Your task to perform on an android device: check battery use Image 0: 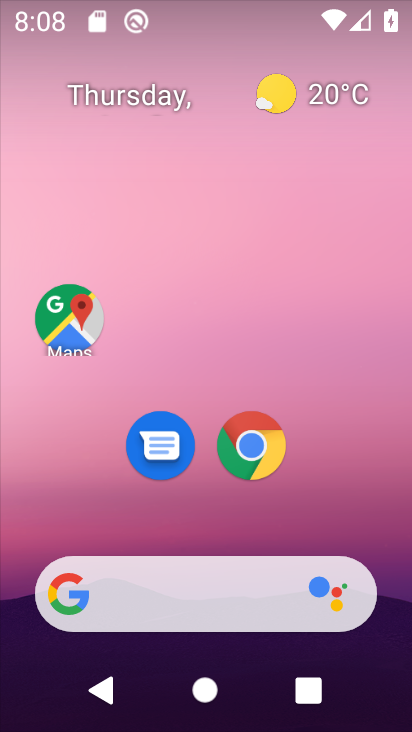
Step 0: drag from (291, 438) to (298, 24)
Your task to perform on an android device: check battery use Image 1: 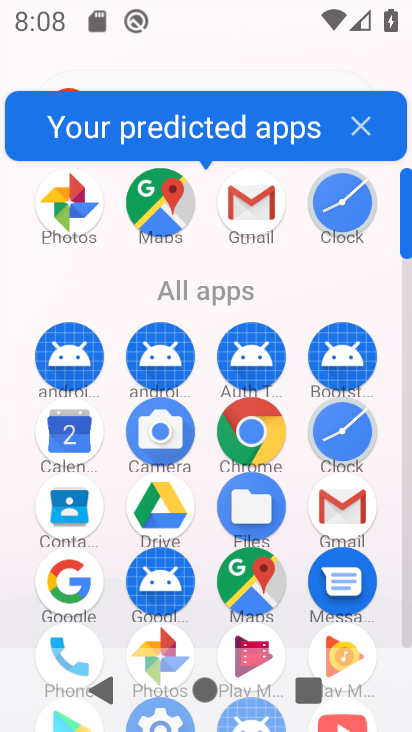
Step 1: drag from (295, 559) to (371, 97)
Your task to perform on an android device: check battery use Image 2: 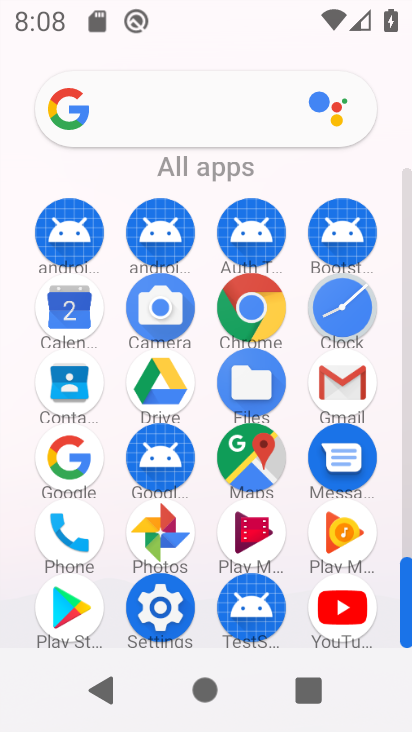
Step 2: drag from (165, 611) to (115, 189)
Your task to perform on an android device: check battery use Image 3: 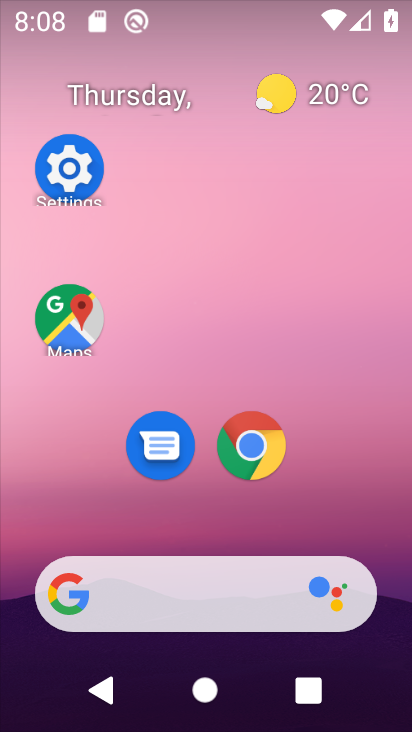
Step 3: click (50, 152)
Your task to perform on an android device: check battery use Image 4: 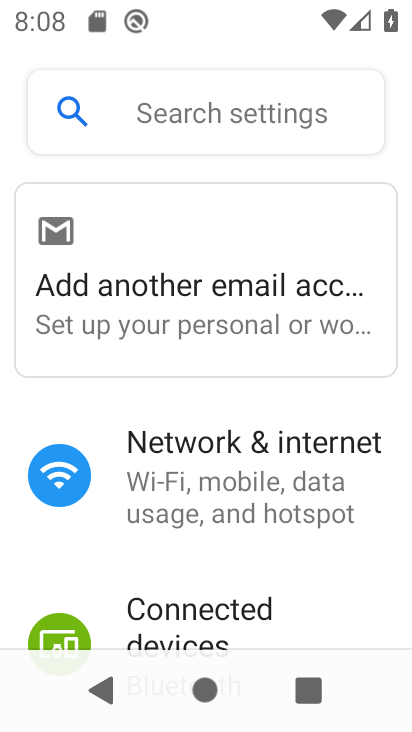
Step 4: drag from (355, 582) to (346, 134)
Your task to perform on an android device: check battery use Image 5: 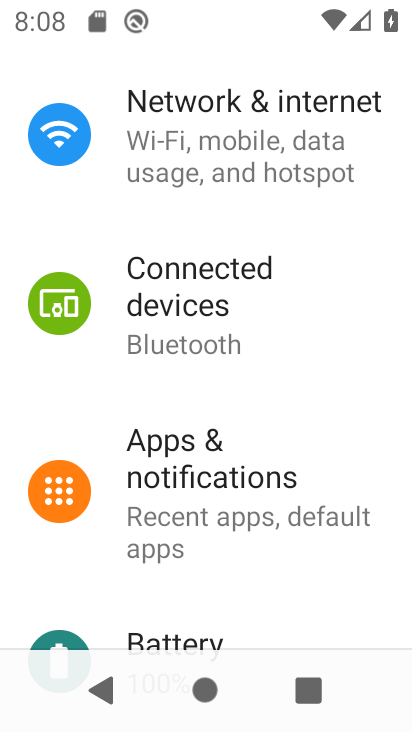
Step 5: click (179, 636)
Your task to perform on an android device: check battery use Image 6: 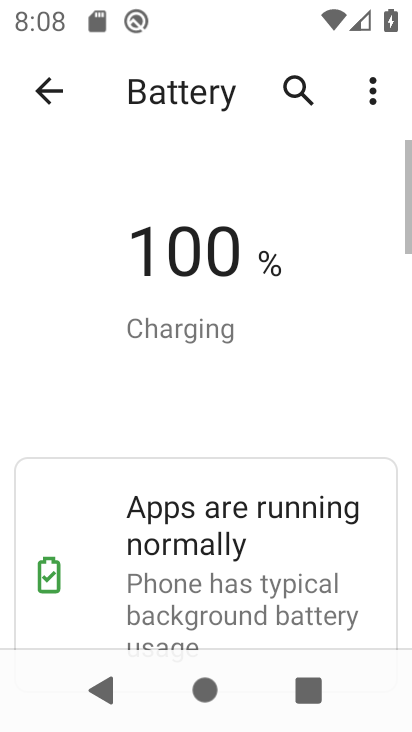
Step 6: click (375, 81)
Your task to perform on an android device: check battery use Image 7: 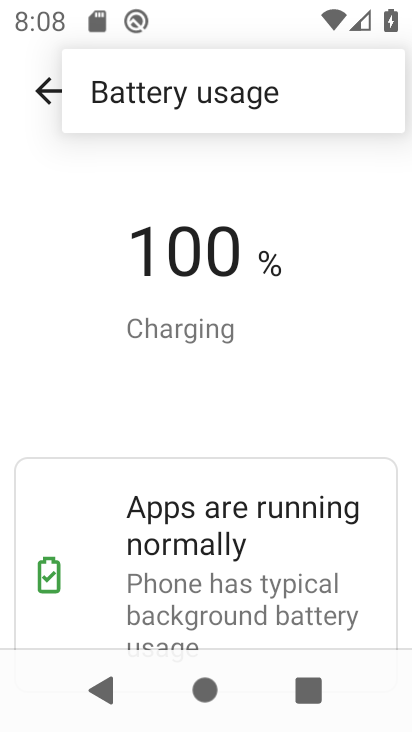
Step 7: click (296, 70)
Your task to perform on an android device: check battery use Image 8: 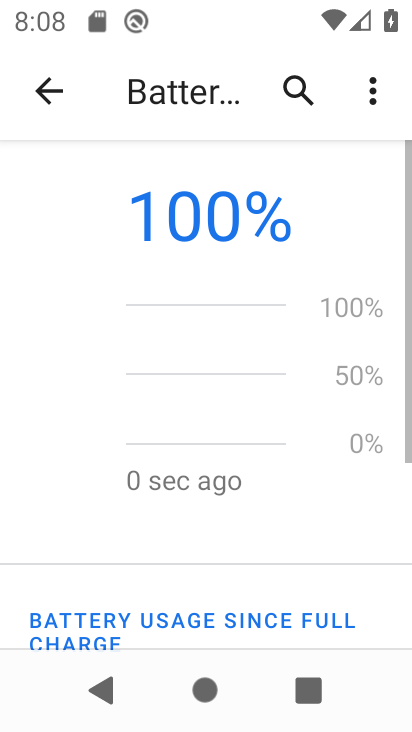
Step 8: task complete